Your task to perform on an android device: What's the weather? Image 0: 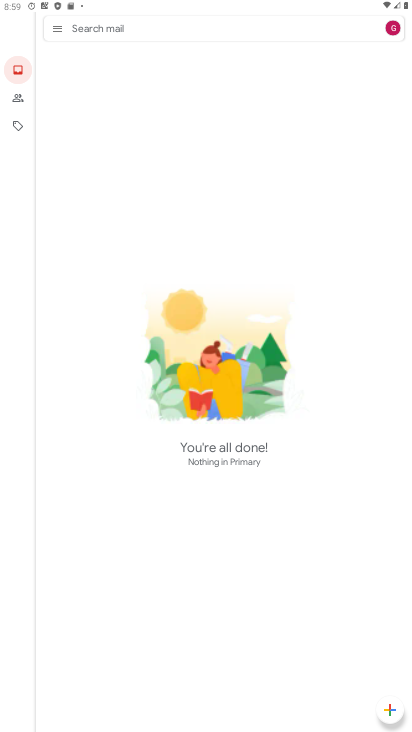
Step 0: press home button
Your task to perform on an android device: What's the weather? Image 1: 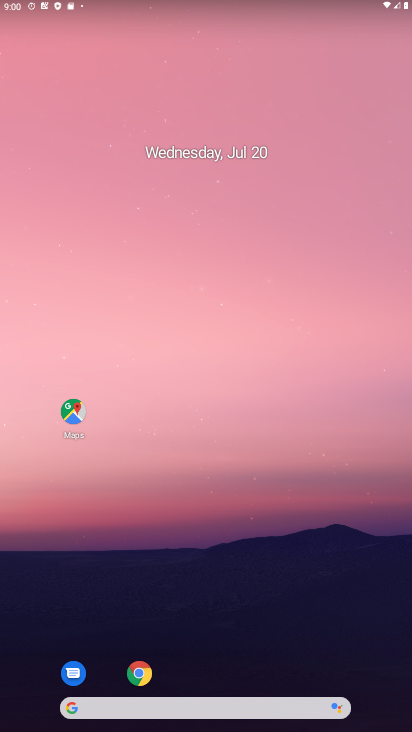
Step 1: drag from (323, 650) to (193, 79)
Your task to perform on an android device: What's the weather? Image 2: 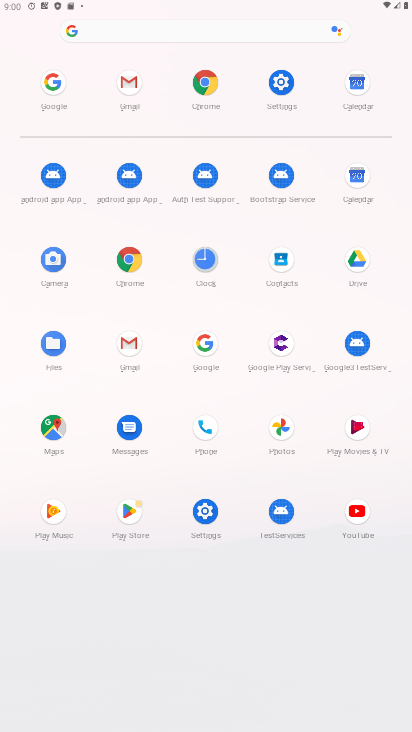
Step 2: click (207, 358)
Your task to perform on an android device: What's the weather? Image 3: 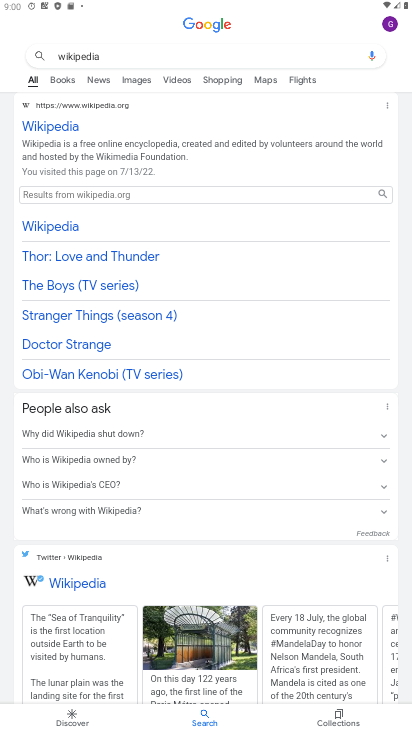
Step 3: press back button
Your task to perform on an android device: What's the weather? Image 4: 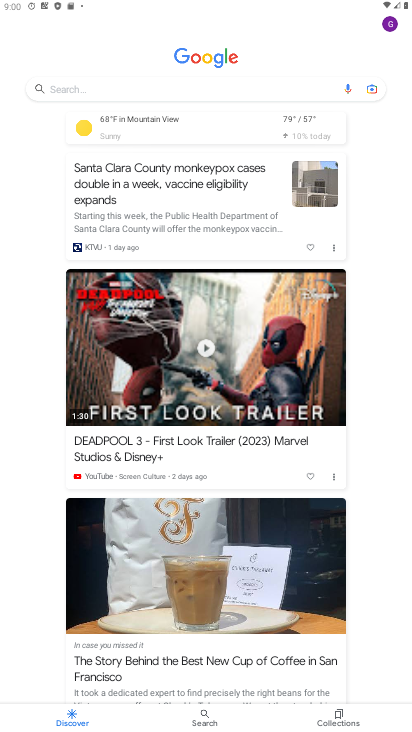
Step 4: click (153, 91)
Your task to perform on an android device: What's the weather? Image 5: 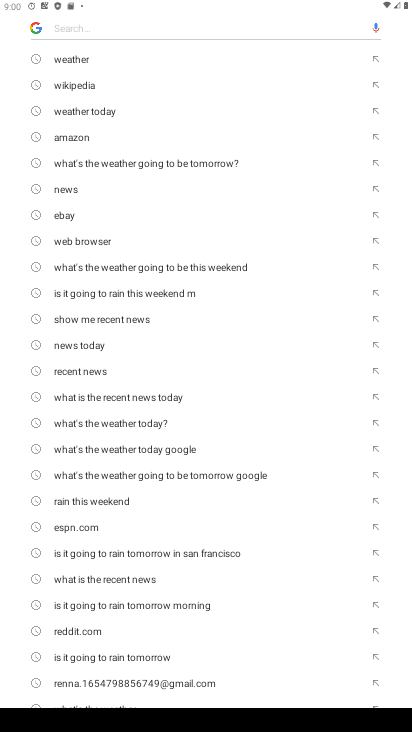
Step 5: click (72, 66)
Your task to perform on an android device: What's the weather? Image 6: 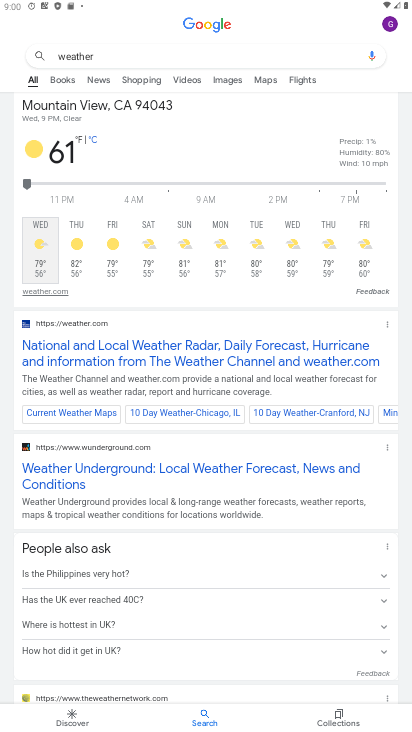
Step 6: task complete